Your task to perform on an android device: Go to wifi settings Image 0: 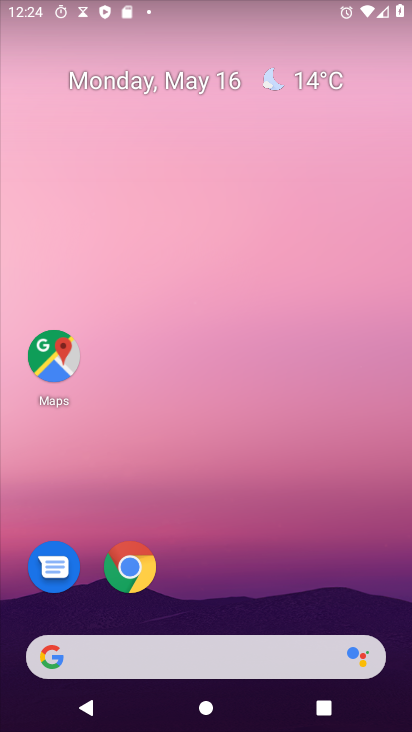
Step 0: drag from (231, 596) to (223, 28)
Your task to perform on an android device: Go to wifi settings Image 1: 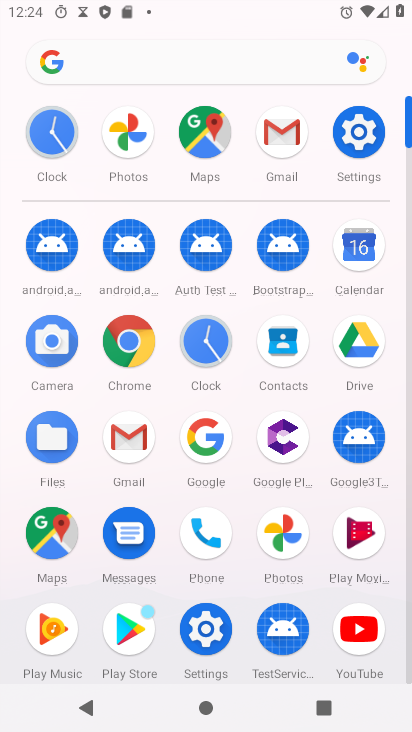
Step 1: click (351, 129)
Your task to perform on an android device: Go to wifi settings Image 2: 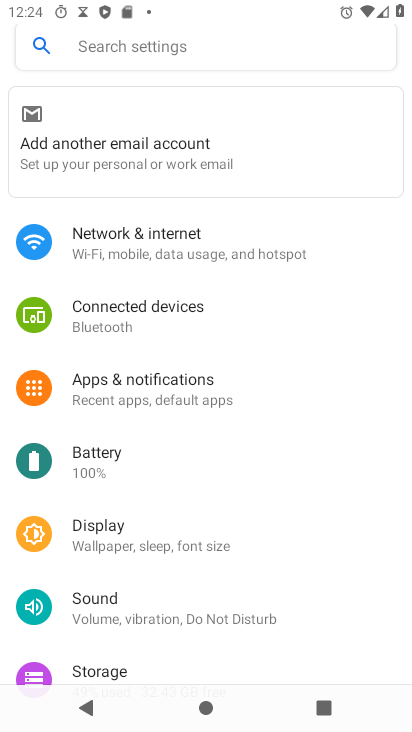
Step 2: click (156, 236)
Your task to perform on an android device: Go to wifi settings Image 3: 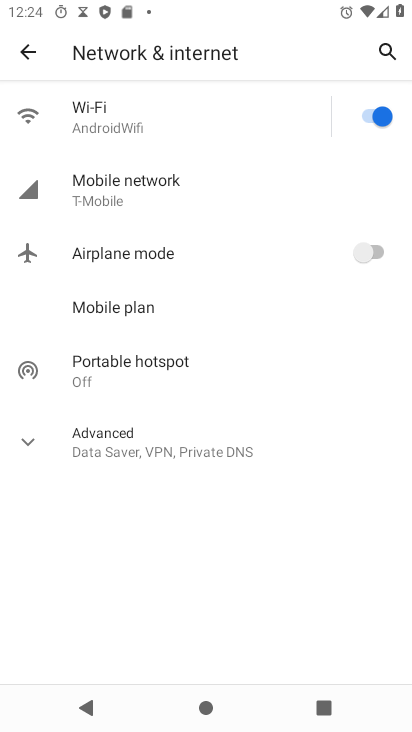
Step 3: click (88, 129)
Your task to perform on an android device: Go to wifi settings Image 4: 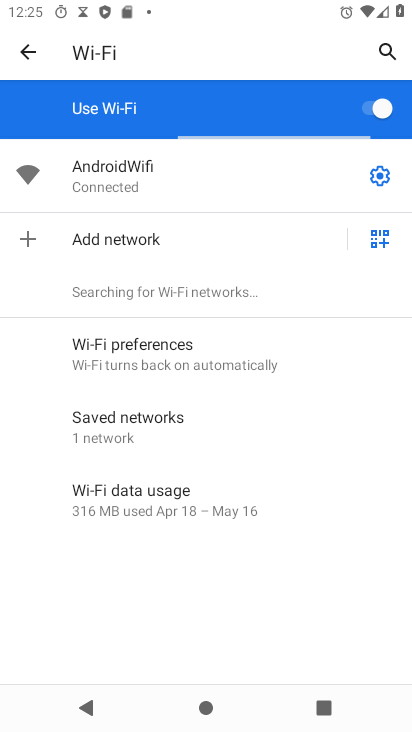
Step 4: task complete